Your task to perform on an android device: Set the phone to "Do not disturb". Image 0: 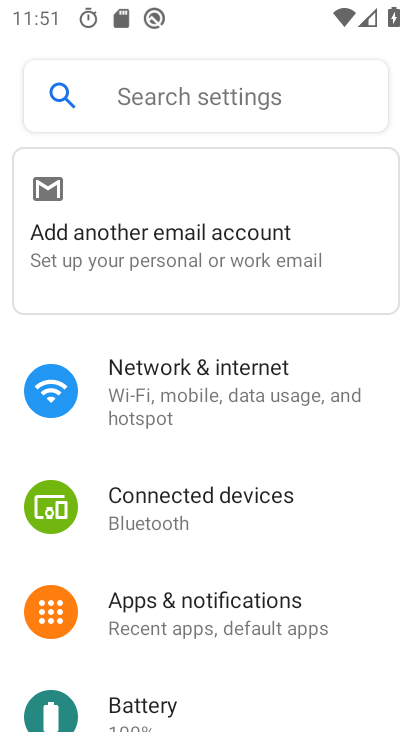
Step 0: press home button
Your task to perform on an android device: Set the phone to "Do not disturb". Image 1: 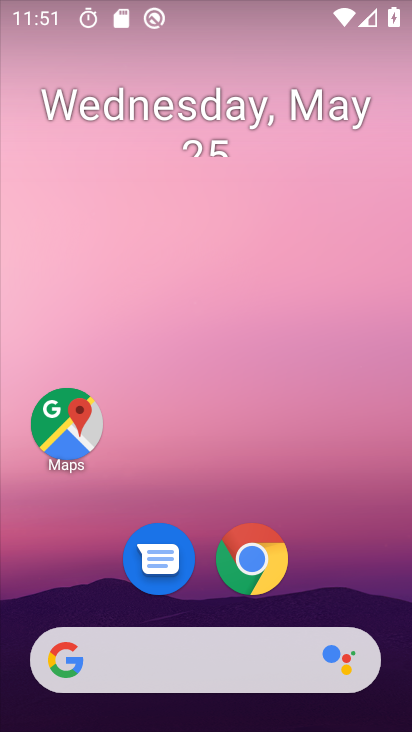
Step 1: drag from (365, 523) to (390, 220)
Your task to perform on an android device: Set the phone to "Do not disturb". Image 2: 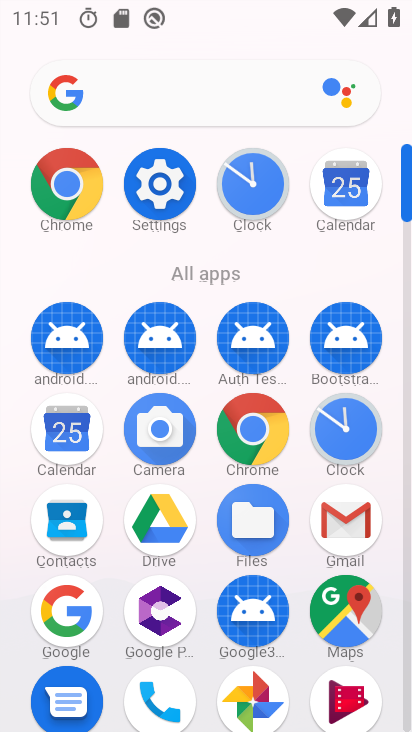
Step 2: click (154, 192)
Your task to perform on an android device: Set the phone to "Do not disturb". Image 3: 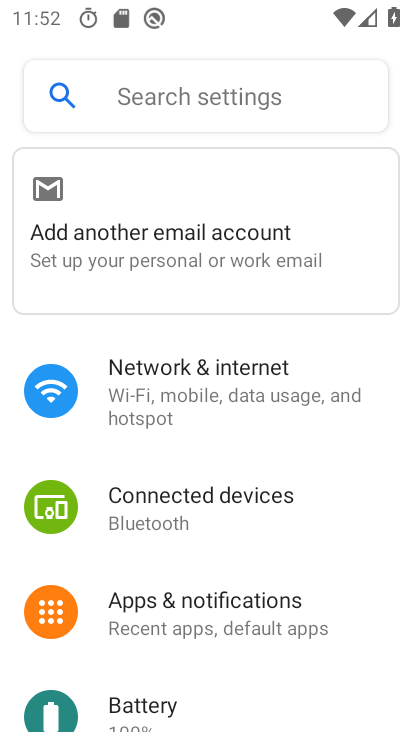
Step 3: drag from (228, 584) to (248, 143)
Your task to perform on an android device: Set the phone to "Do not disturb". Image 4: 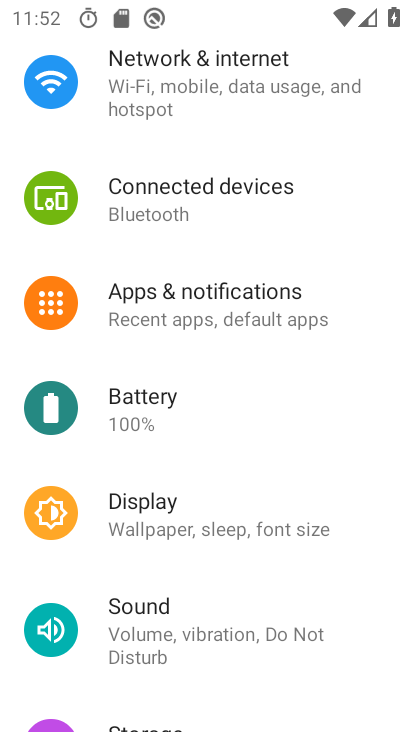
Step 4: drag from (198, 589) to (248, 323)
Your task to perform on an android device: Set the phone to "Do not disturb". Image 5: 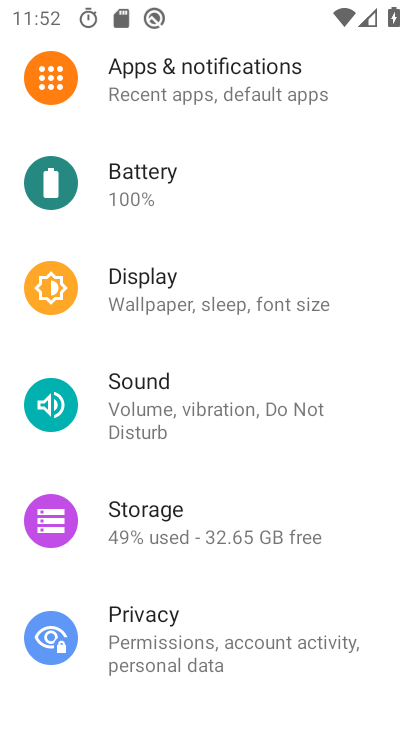
Step 5: click (185, 418)
Your task to perform on an android device: Set the phone to "Do not disturb". Image 6: 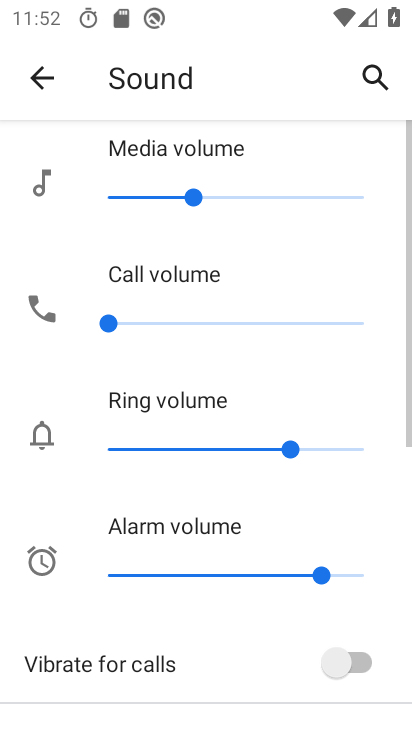
Step 6: drag from (155, 662) to (187, 361)
Your task to perform on an android device: Set the phone to "Do not disturb". Image 7: 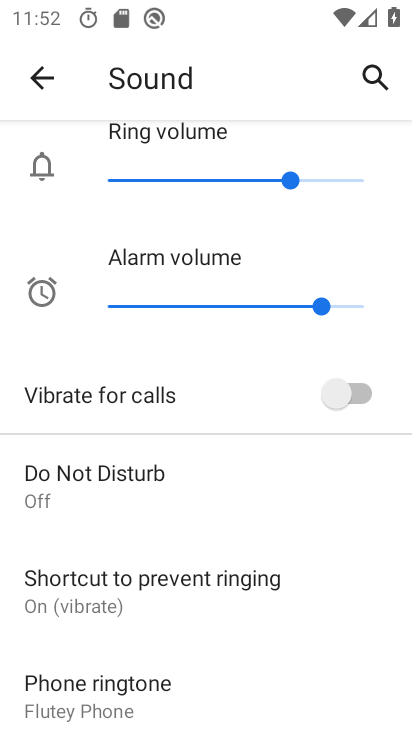
Step 7: click (150, 490)
Your task to perform on an android device: Set the phone to "Do not disturb". Image 8: 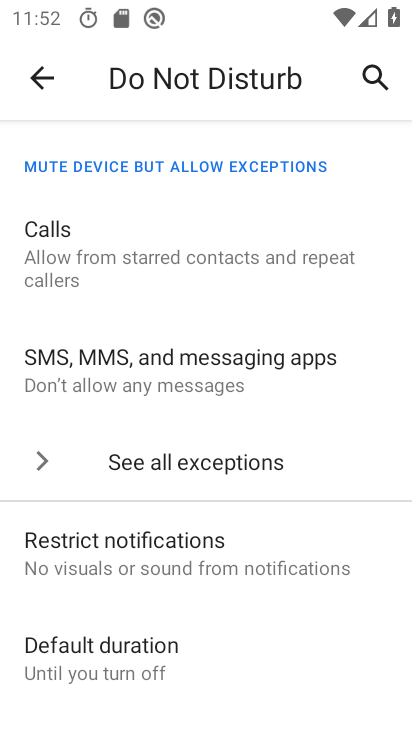
Step 8: drag from (207, 639) to (239, 273)
Your task to perform on an android device: Set the phone to "Do not disturb". Image 9: 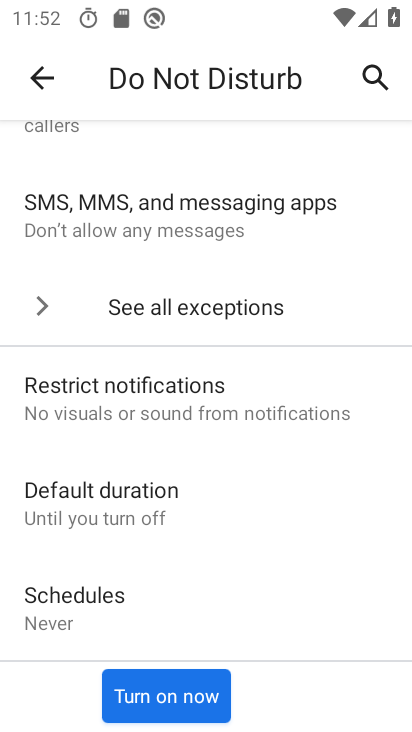
Step 9: click (196, 693)
Your task to perform on an android device: Set the phone to "Do not disturb". Image 10: 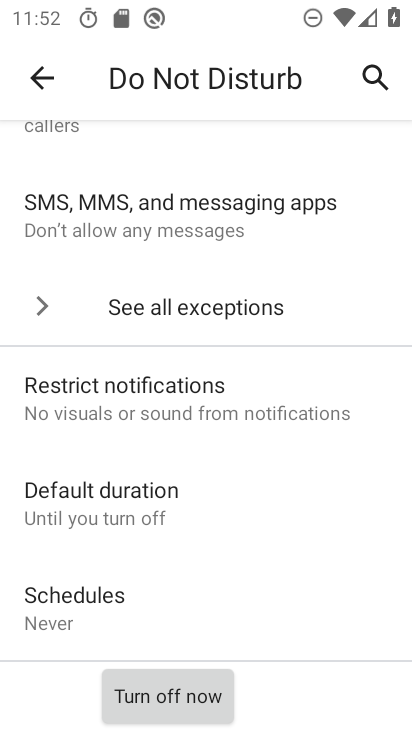
Step 10: task complete